Your task to perform on an android device: Show the shopping cart on costco. Add dell xps to the cart on costco, then select checkout. Image 0: 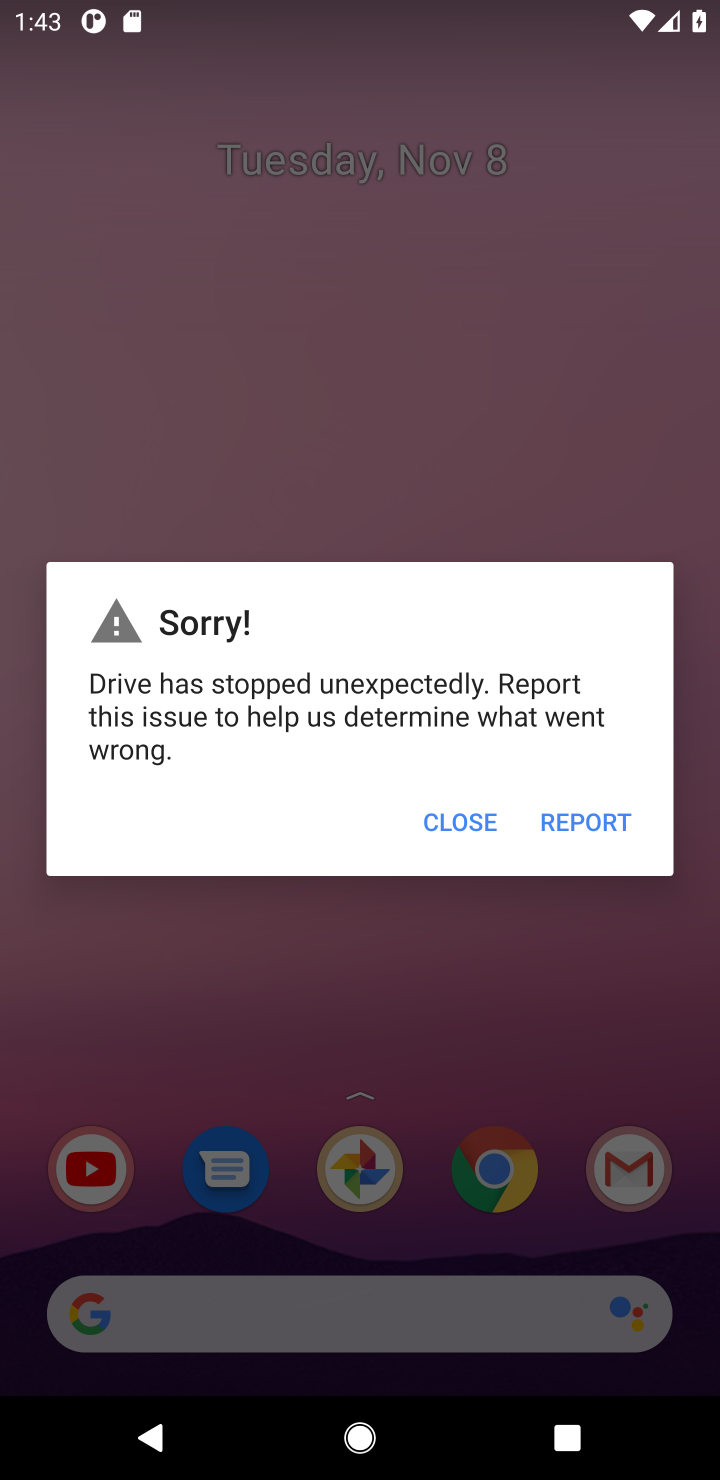
Step 0: click (497, 822)
Your task to perform on an android device: Show the shopping cart on costco. Add dell xps to the cart on costco, then select checkout. Image 1: 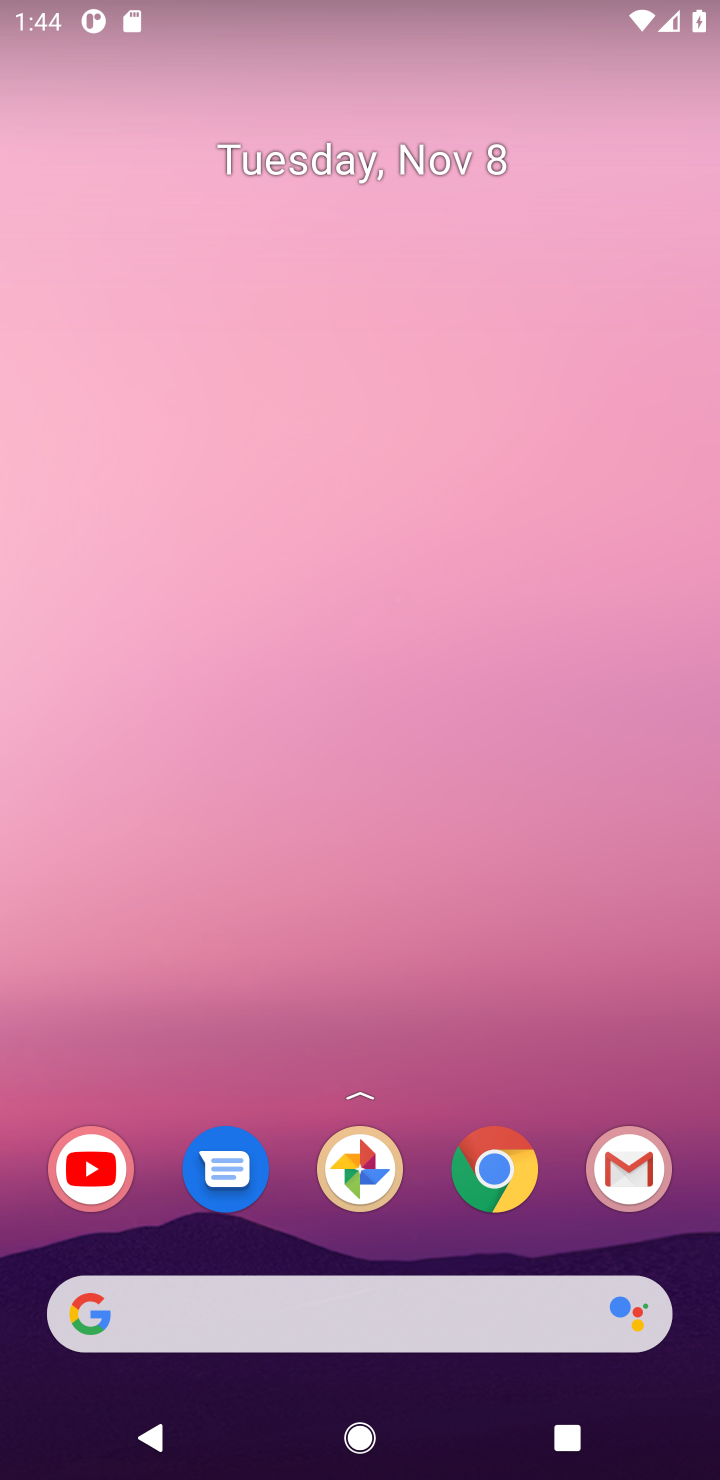
Step 1: click (513, 1177)
Your task to perform on an android device: Show the shopping cart on costco. Add dell xps to the cart on costco, then select checkout. Image 2: 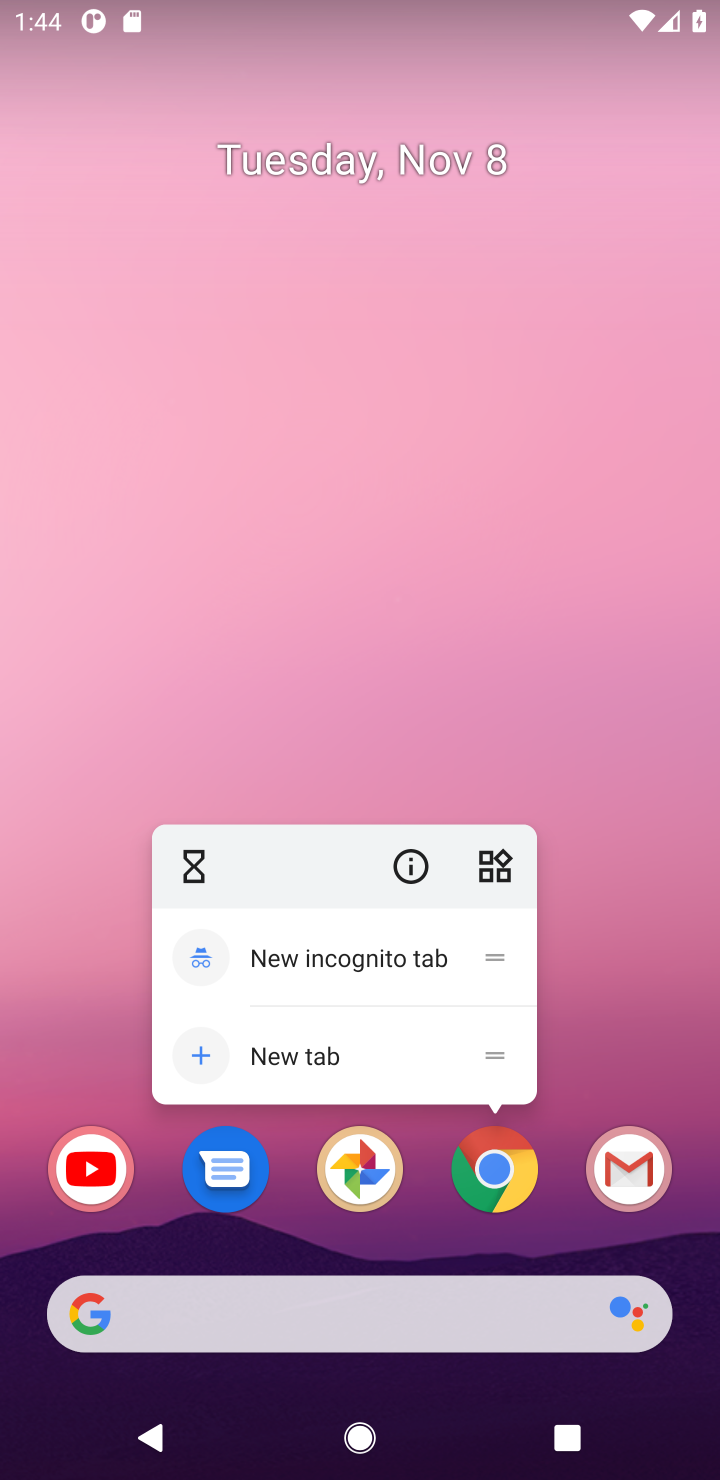
Step 2: click (507, 1182)
Your task to perform on an android device: Show the shopping cart on costco. Add dell xps to the cart on costco, then select checkout. Image 3: 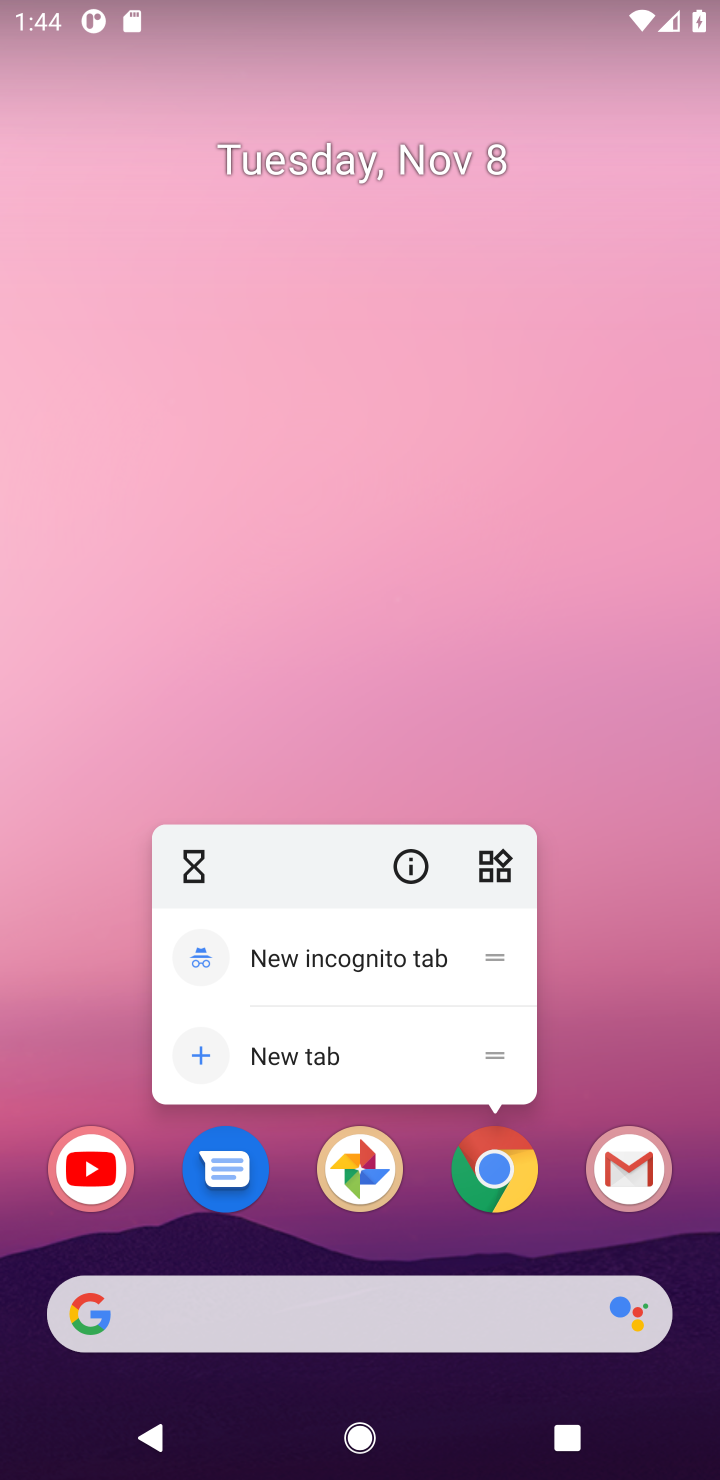
Step 3: click (507, 1182)
Your task to perform on an android device: Show the shopping cart on costco. Add dell xps to the cart on costco, then select checkout. Image 4: 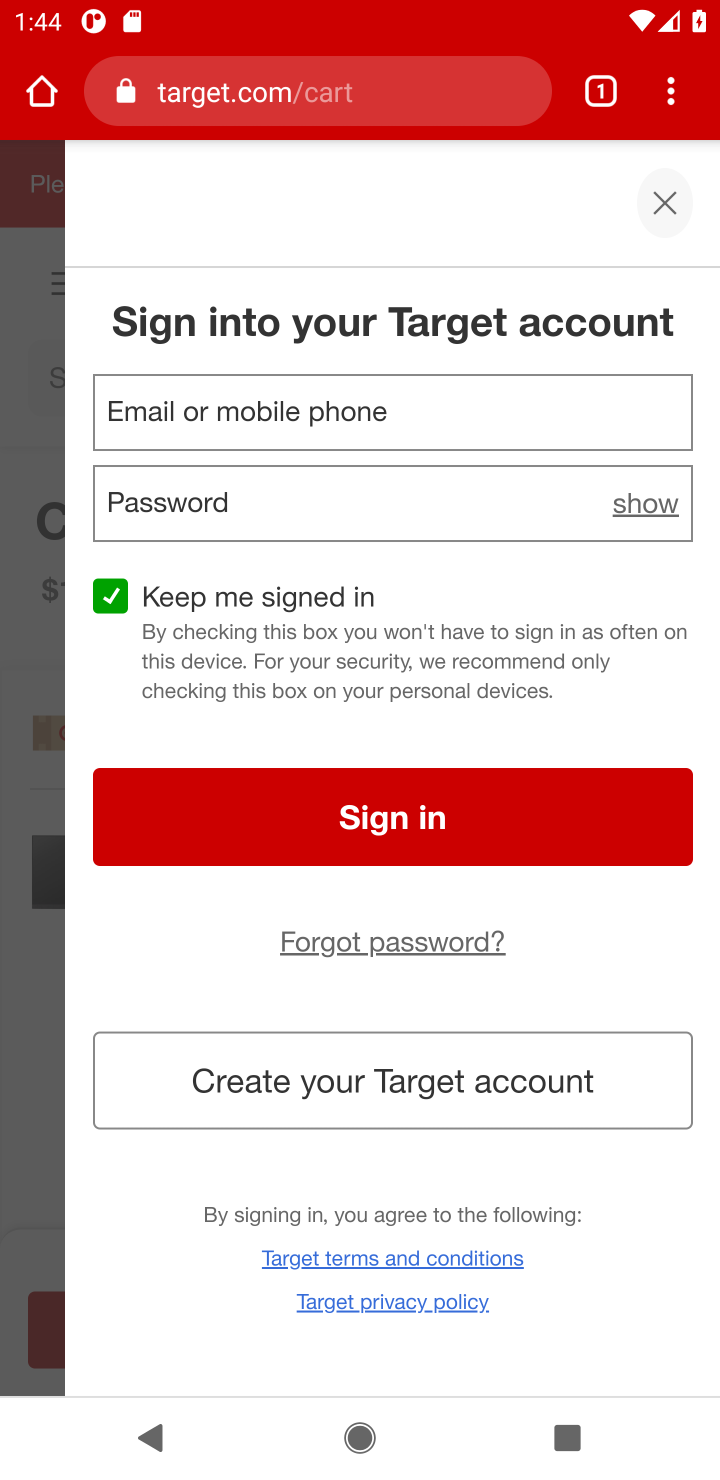
Step 4: click (292, 106)
Your task to perform on an android device: Show the shopping cart on costco. Add dell xps to the cart on costco, then select checkout. Image 5: 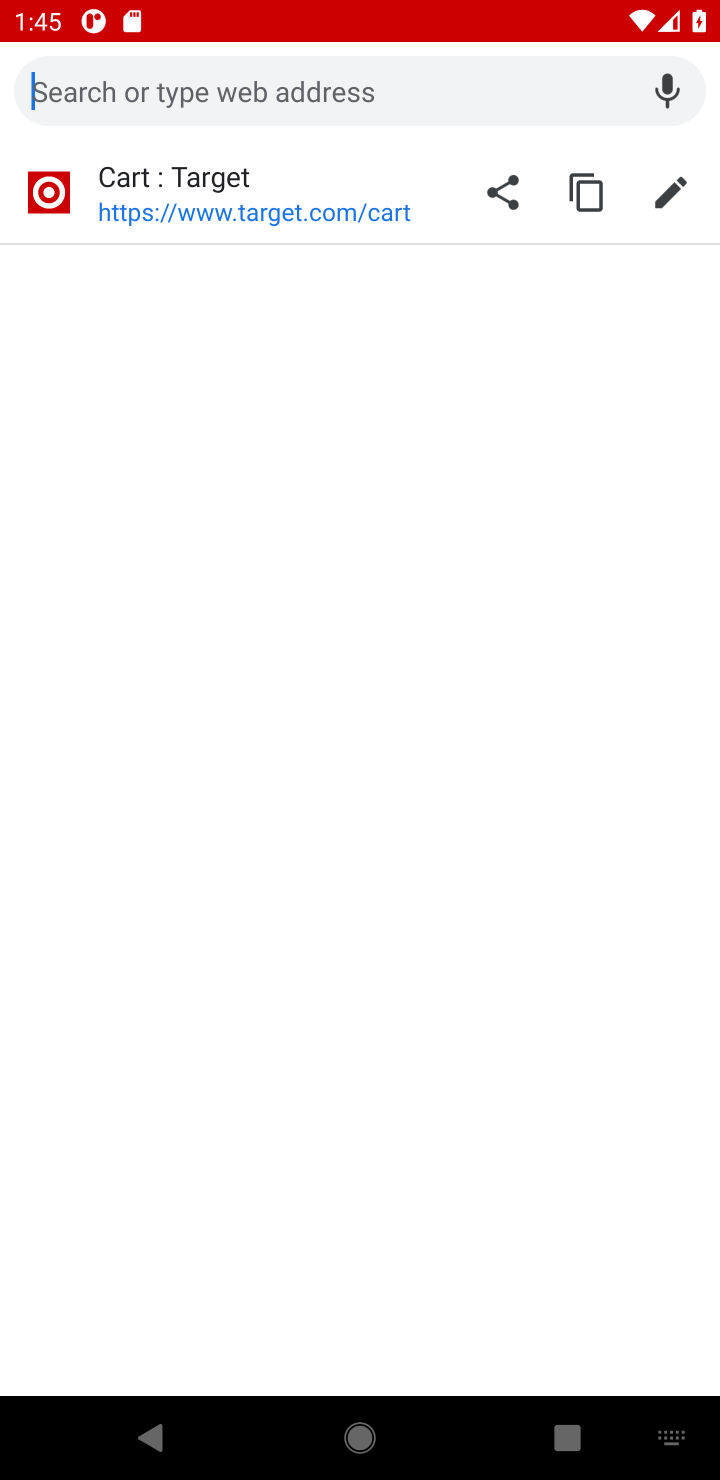
Step 5: type "costco"
Your task to perform on an android device: Show the shopping cart on costco. Add dell xps to the cart on costco, then select checkout. Image 6: 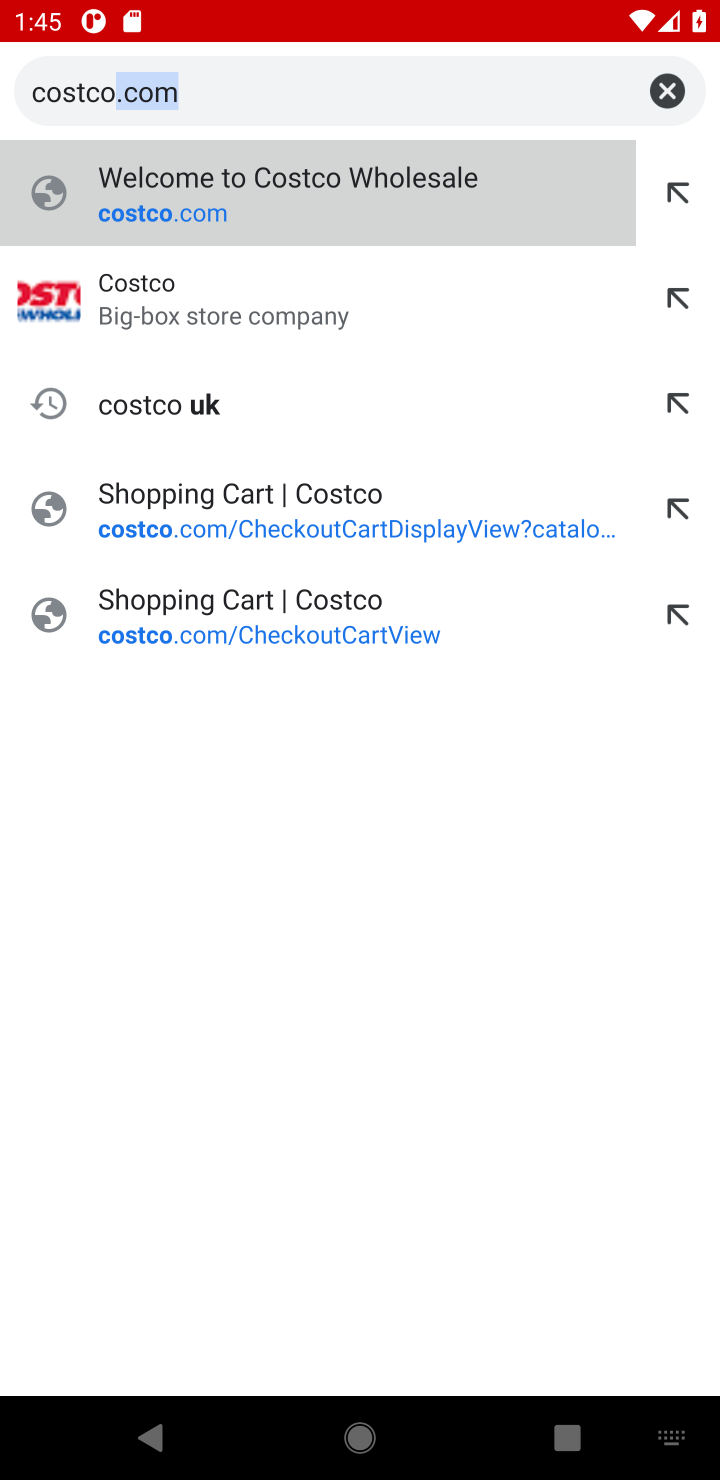
Step 6: click (299, 182)
Your task to perform on an android device: Show the shopping cart on costco. Add dell xps to the cart on costco, then select checkout. Image 7: 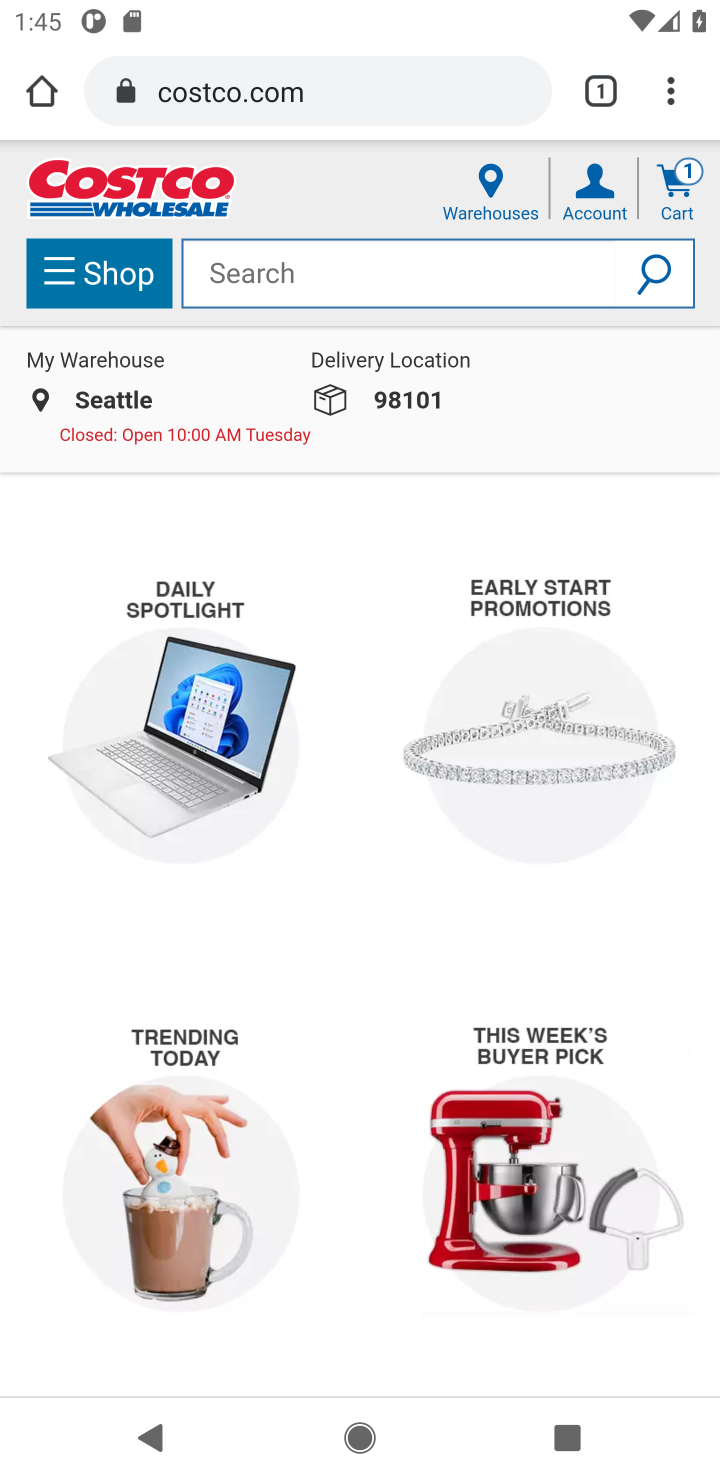
Step 7: click (367, 272)
Your task to perform on an android device: Show the shopping cart on costco. Add dell xps to the cart on costco, then select checkout. Image 8: 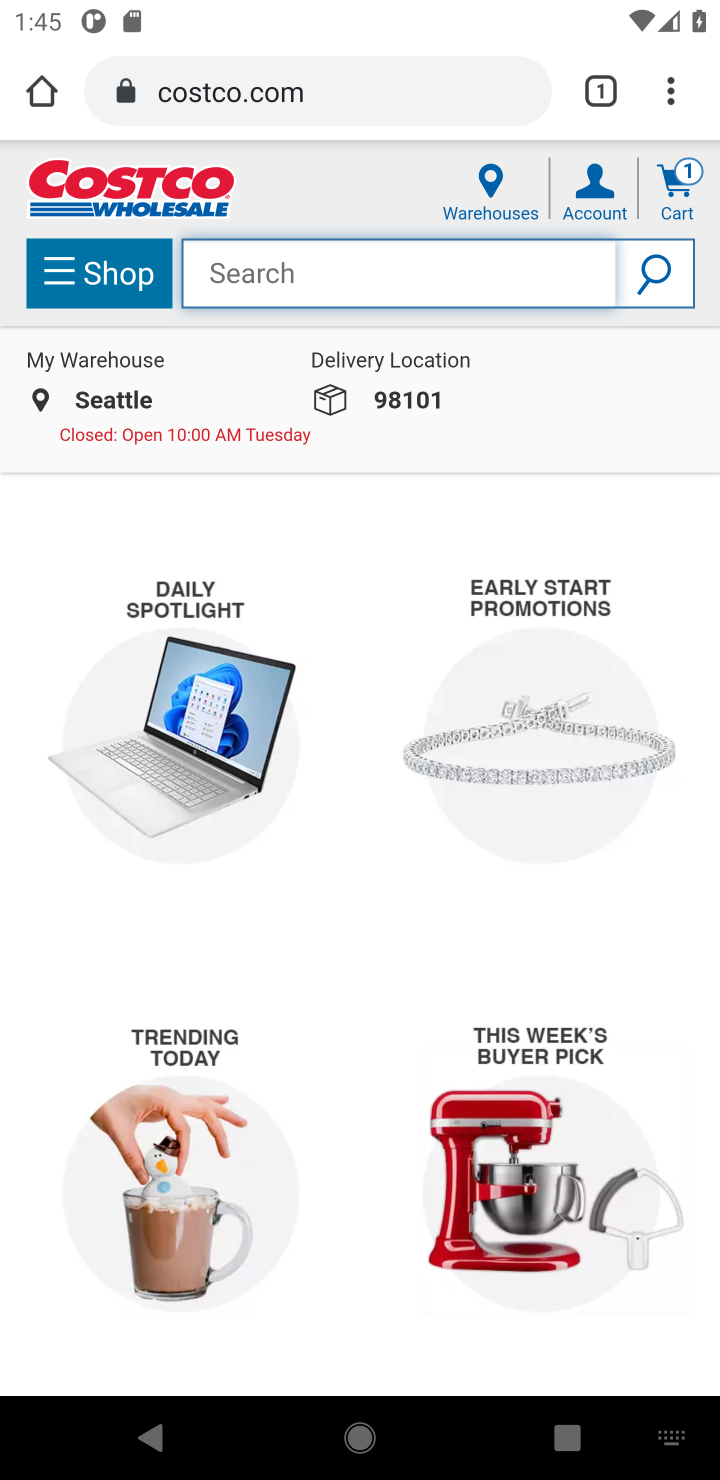
Step 8: type "dell xps"
Your task to perform on an android device: Show the shopping cart on costco. Add dell xps to the cart on costco, then select checkout. Image 9: 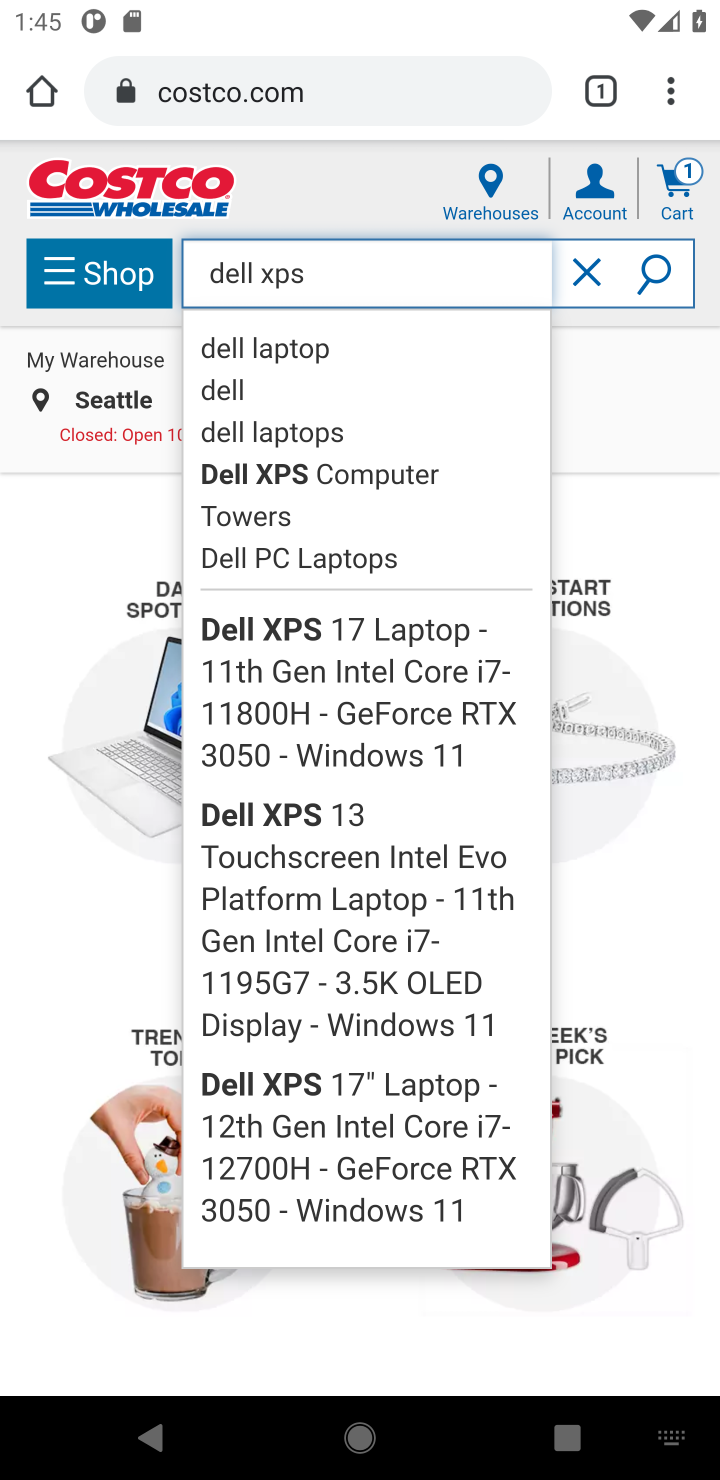
Step 9: press enter
Your task to perform on an android device: Show the shopping cart on costco. Add dell xps to the cart on costco, then select checkout. Image 10: 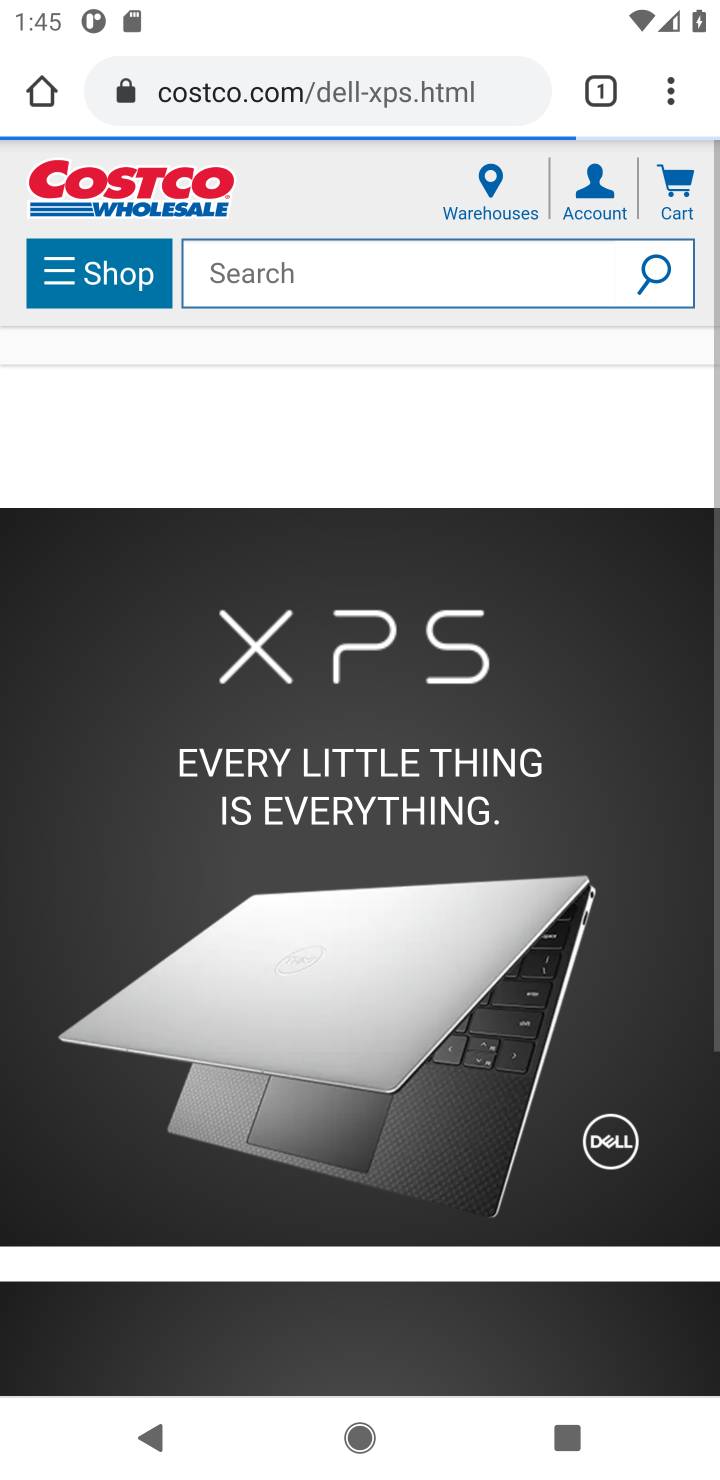
Step 10: press enter
Your task to perform on an android device: Show the shopping cart on costco. Add dell xps to the cart on costco, then select checkout. Image 11: 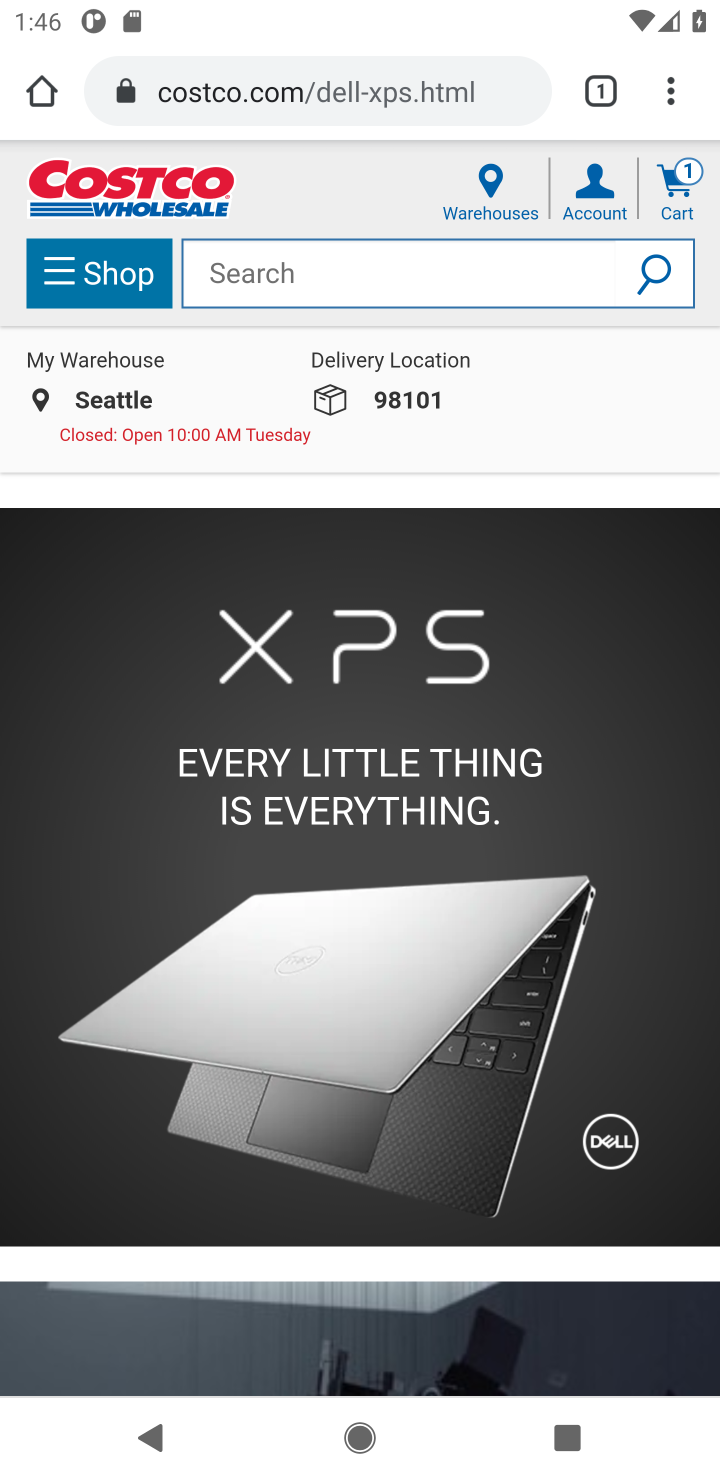
Step 11: drag from (531, 1142) to (412, 505)
Your task to perform on an android device: Show the shopping cart on costco. Add dell xps to the cart on costco, then select checkout. Image 12: 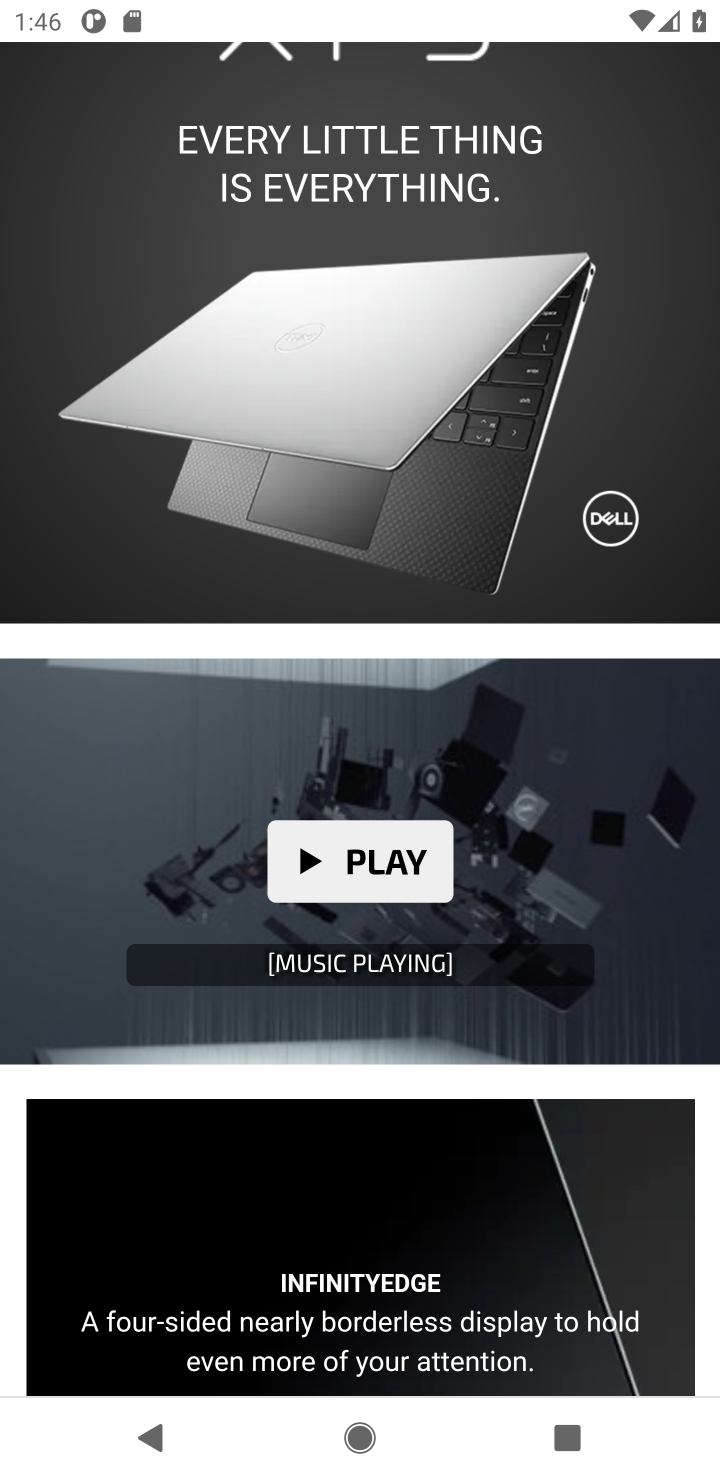
Step 12: drag from (367, 1069) to (243, 549)
Your task to perform on an android device: Show the shopping cart on costco. Add dell xps to the cart on costco, then select checkout. Image 13: 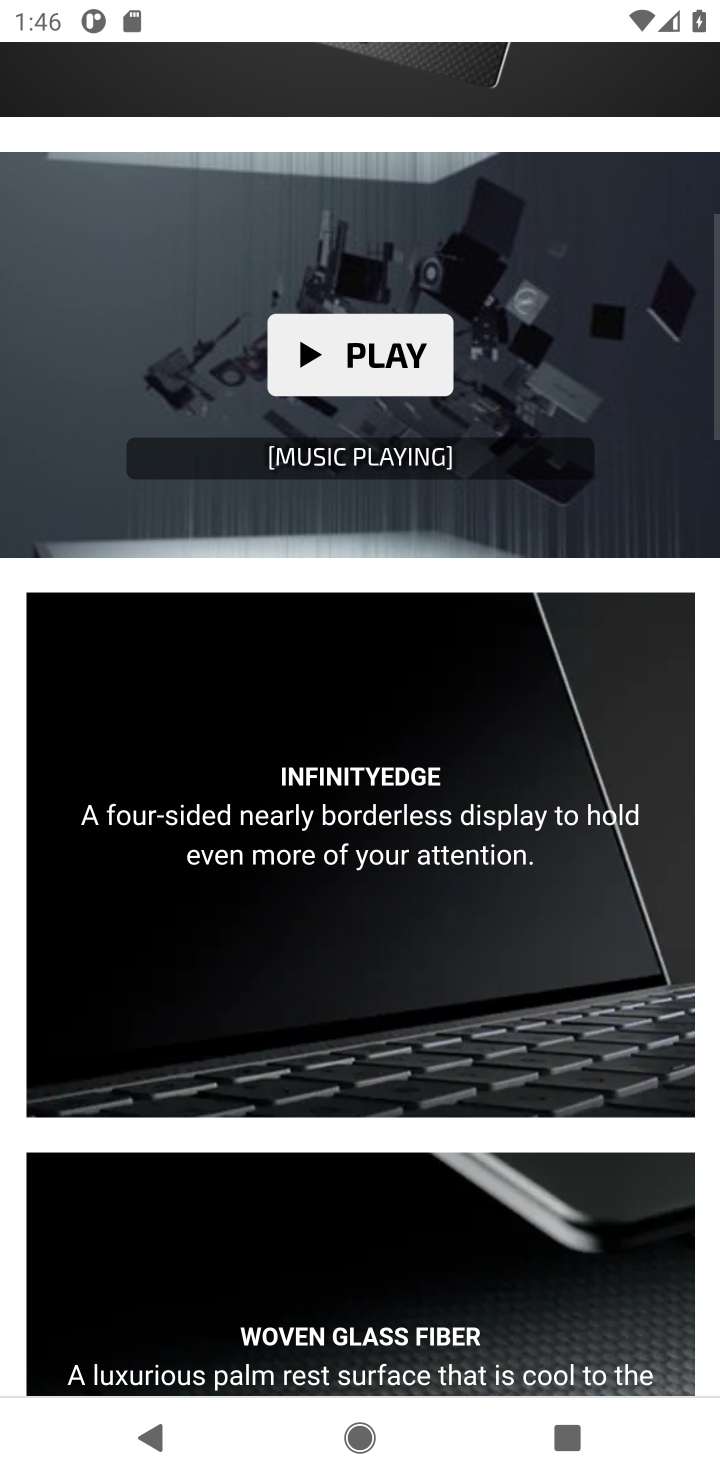
Step 13: drag from (284, 1118) to (25, 244)
Your task to perform on an android device: Show the shopping cart on costco. Add dell xps to the cart on costco, then select checkout. Image 14: 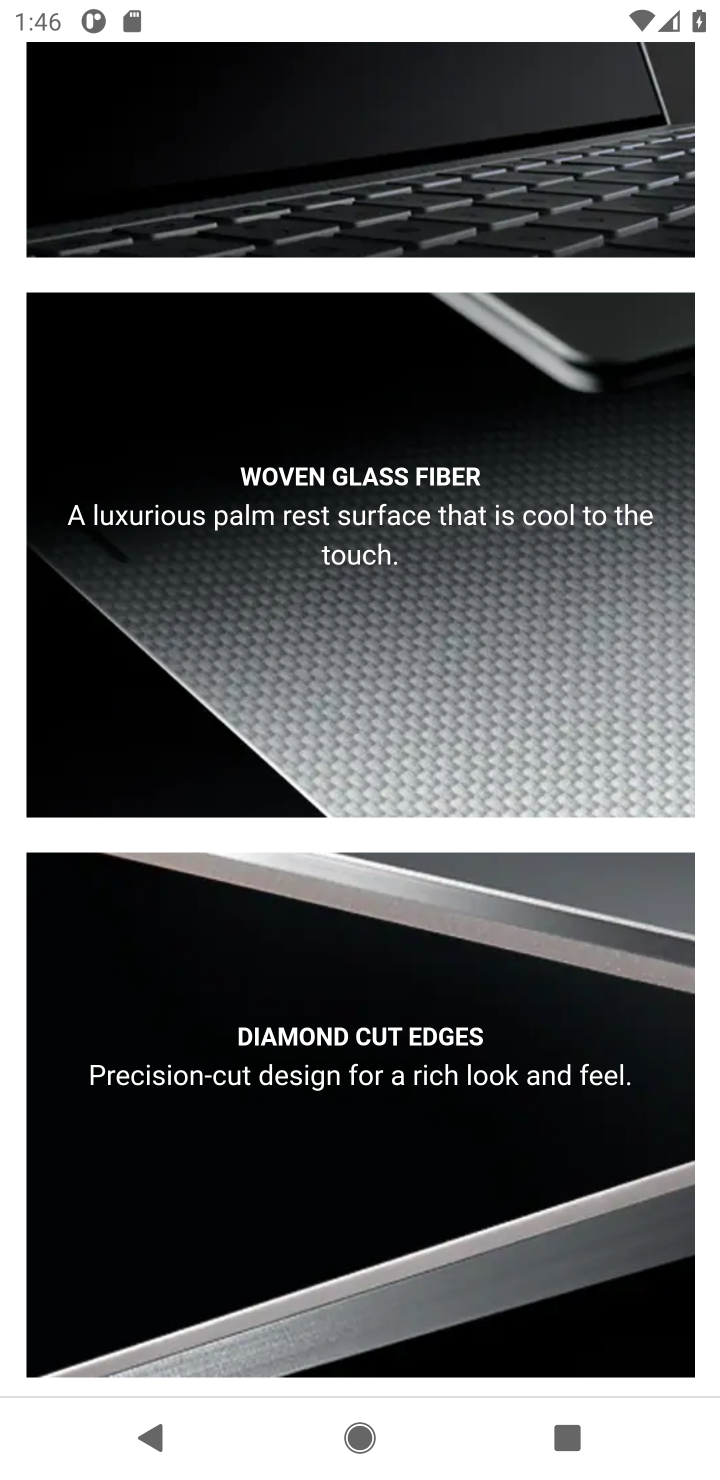
Step 14: drag from (360, 1001) to (331, 317)
Your task to perform on an android device: Show the shopping cart on costco. Add dell xps to the cart on costco, then select checkout. Image 15: 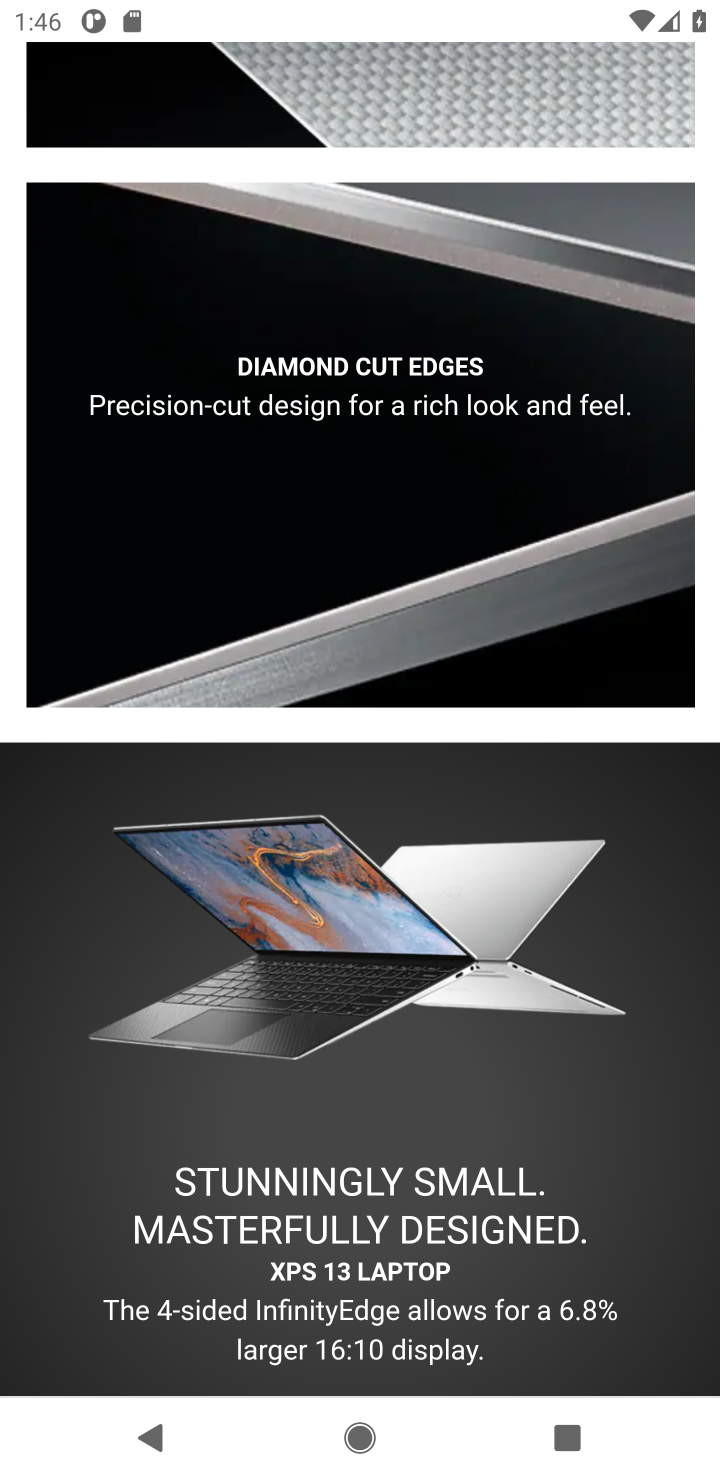
Step 15: drag from (391, 1208) to (313, 594)
Your task to perform on an android device: Show the shopping cart on costco. Add dell xps to the cart on costco, then select checkout. Image 16: 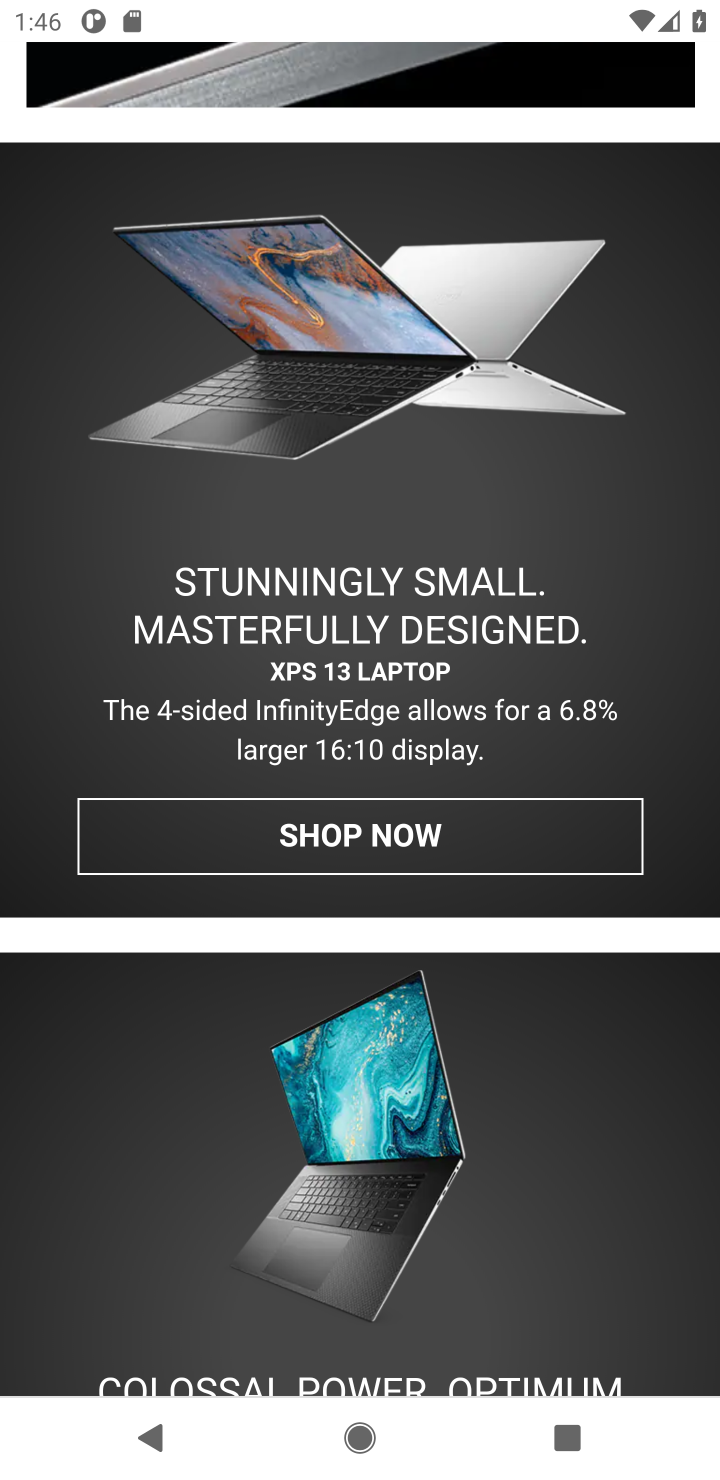
Step 16: click (383, 853)
Your task to perform on an android device: Show the shopping cart on costco. Add dell xps to the cart on costco, then select checkout. Image 17: 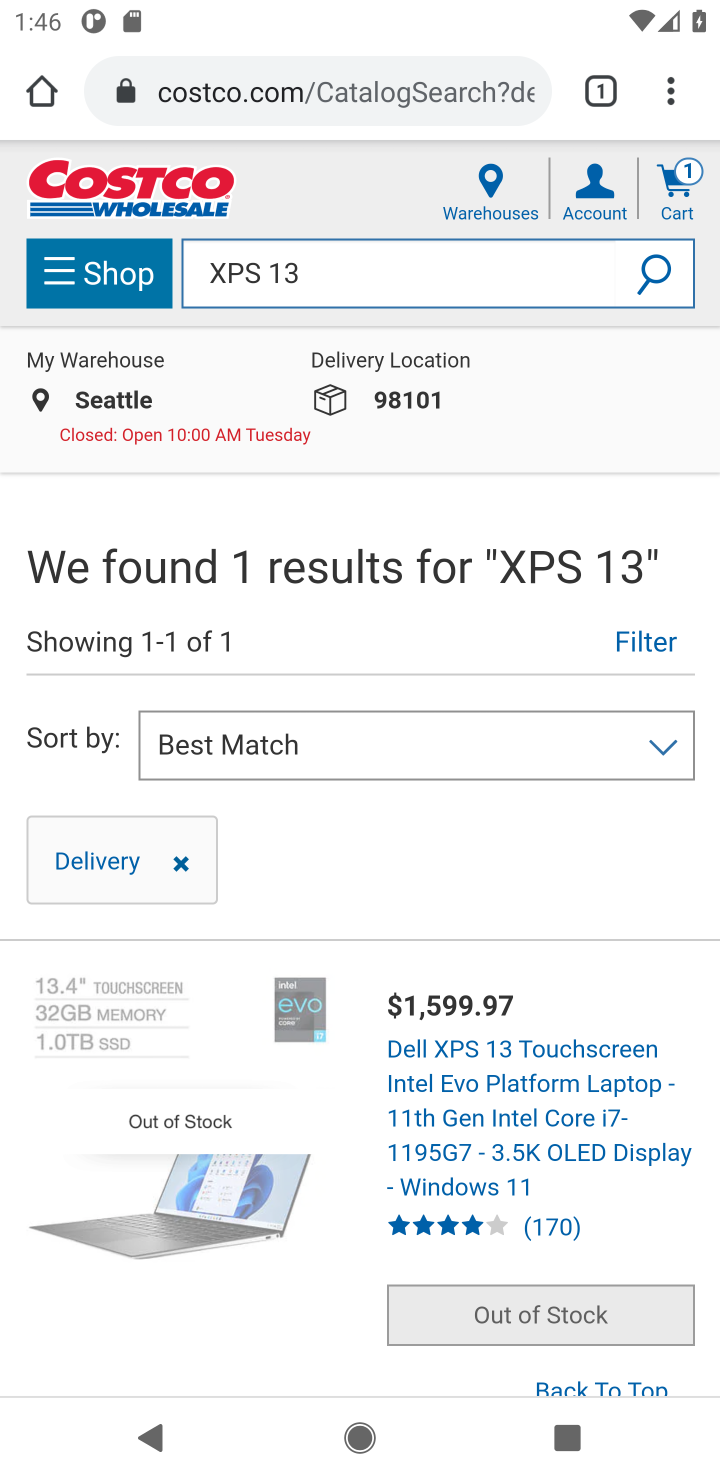
Step 17: task complete